Your task to perform on an android device: Go to Google maps Image 0: 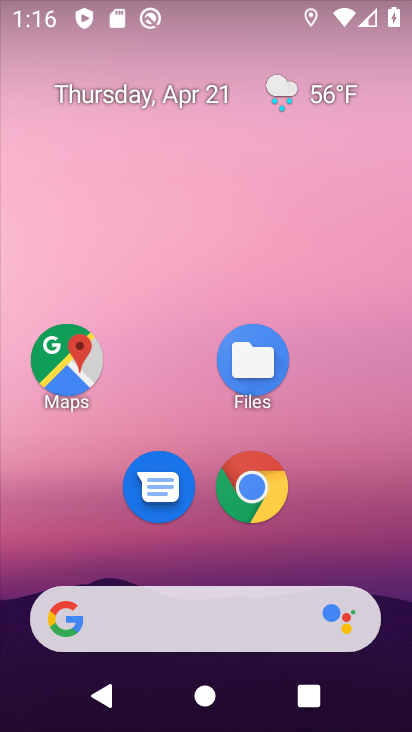
Step 0: drag from (358, 447) to (357, 119)
Your task to perform on an android device: Go to Google maps Image 1: 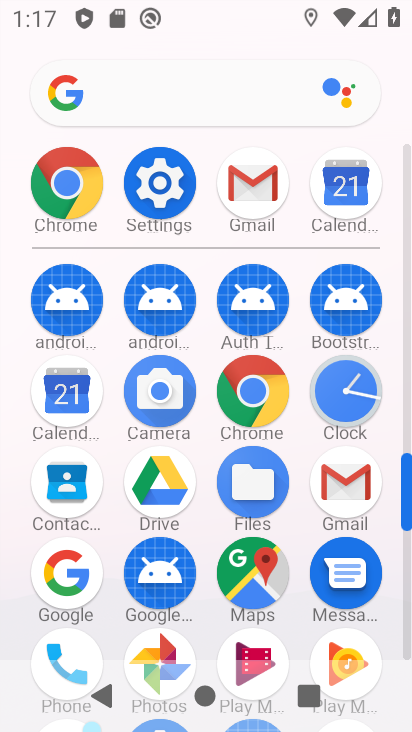
Step 1: click (270, 588)
Your task to perform on an android device: Go to Google maps Image 2: 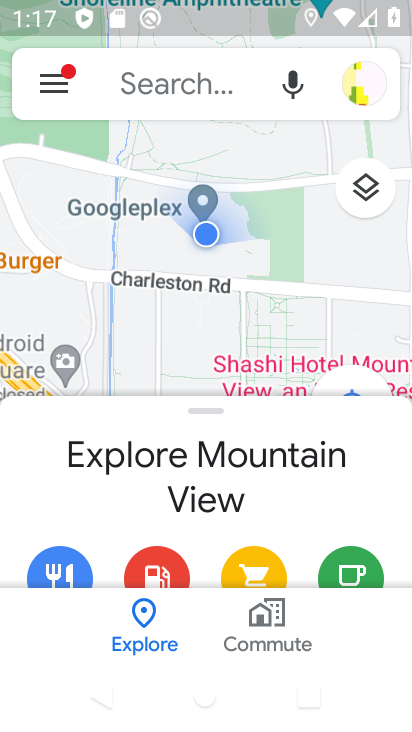
Step 2: task complete